Your task to perform on an android device: Open the calendar and show me this week's events? Image 0: 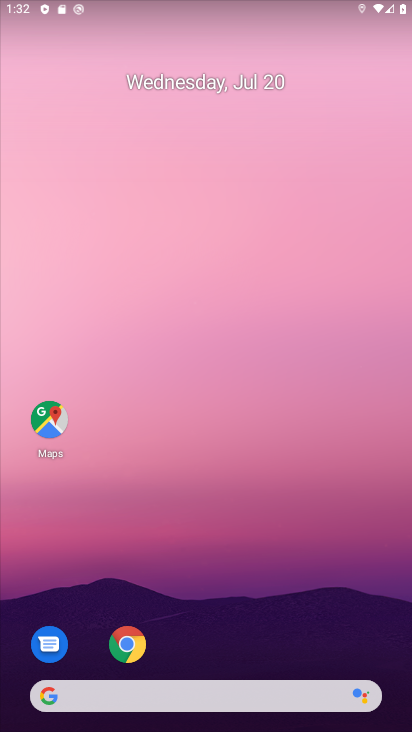
Step 0: drag from (250, 651) to (208, 53)
Your task to perform on an android device: Open the calendar and show me this week's events? Image 1: 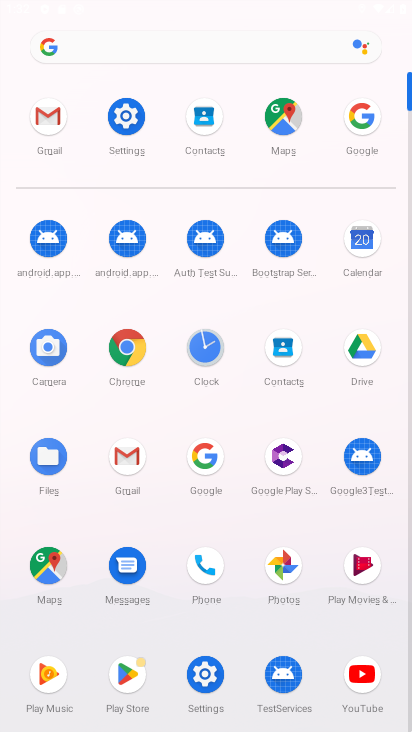
Step 1: click (358, 251)
Your task to perform on an android device: Open the calendar and show me this week's events? Image 2: 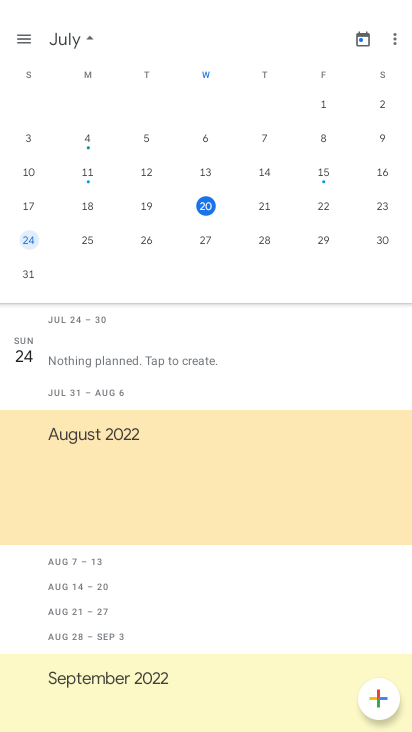
Step 2: click (269, 211)
Your task to perform on an android device: Open the calendar and show me this week's events? Image 3: 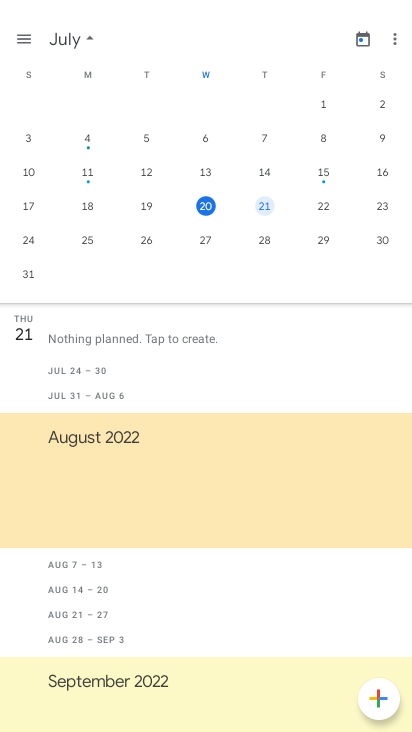
Step 3: click (314, 207)
Your task to perform on an android device: Open the calendar and show me this week's events? Image 4: 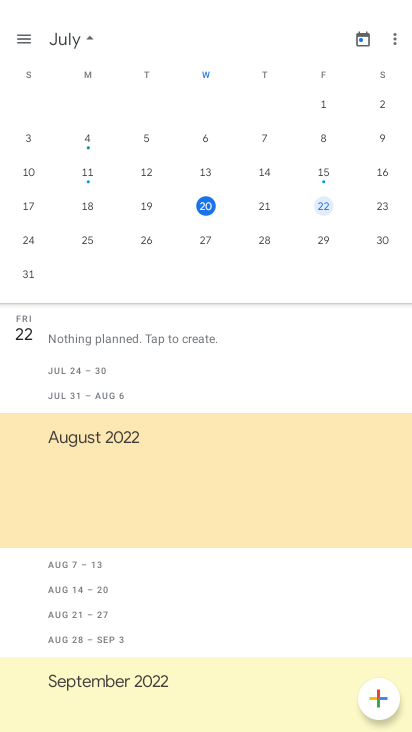
Step 4: click (383, 206)
Your task to perform on an android device: Open the calendar and show me this week's events? Image 5: 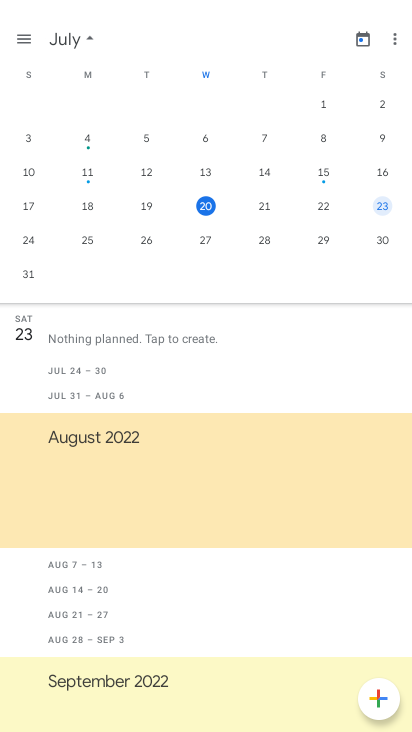
Step 5: task complete